Your task to perform on an android device: turn on javascript in the chrome app Image 0: 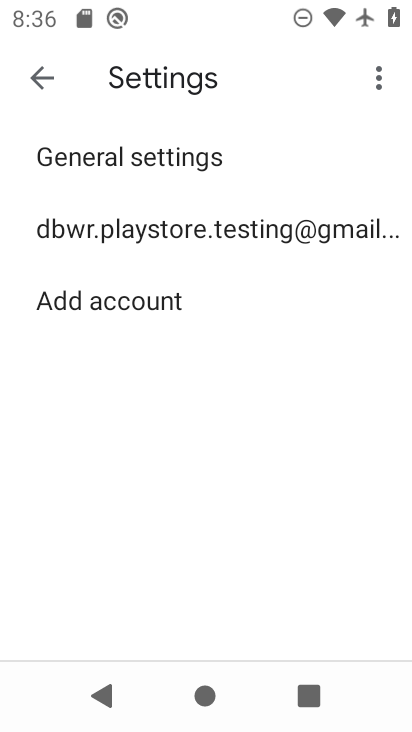
Step 0: press home button
Your task to perform on an android device: turn on javascript in the chrome app Image 1: 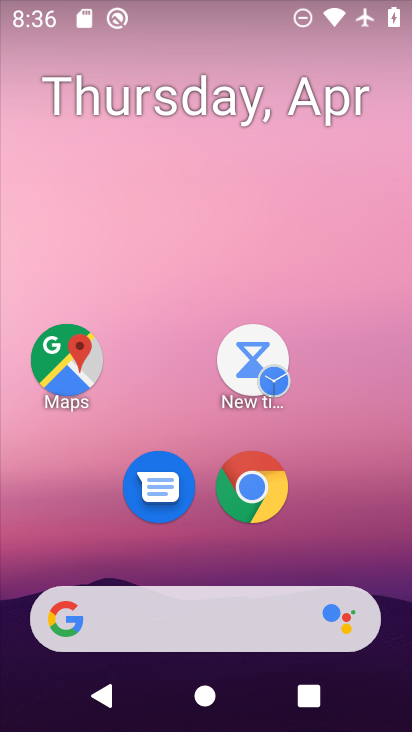
Step 1: click (254, 501)
Your task to perform on an android device: turn on javascript in the chrome app Image 2: 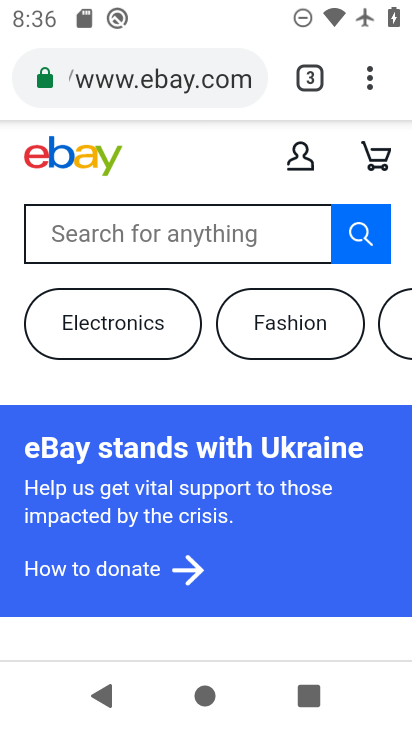
Step 2: drag from (371, 82) to (121, 548)
Your task to perform on an android device: turn on javascript in the chrome app Image 3: 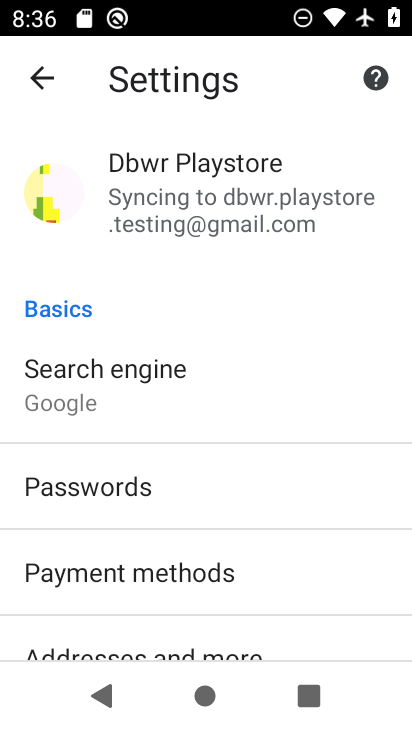
Step 3: drag from (279, 592) to (239, 158)
Your task to perform on an android device: turn on javascript in the chrome app Image 4: 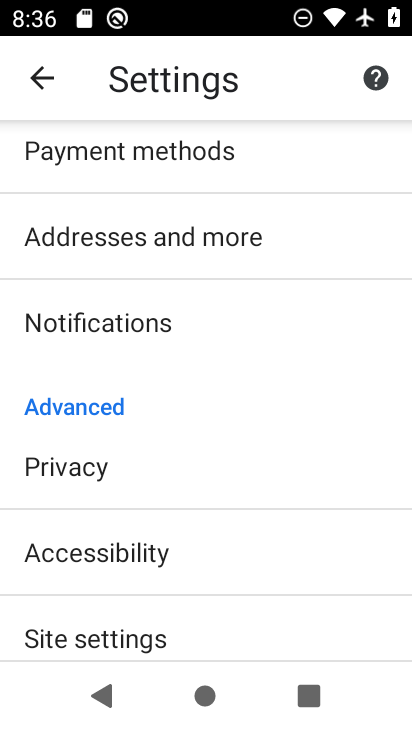
Step 4: drag from (213, 603) to (214, 337)
Your task to perform on an android device: turn on javascript in the chrome app Image 5: 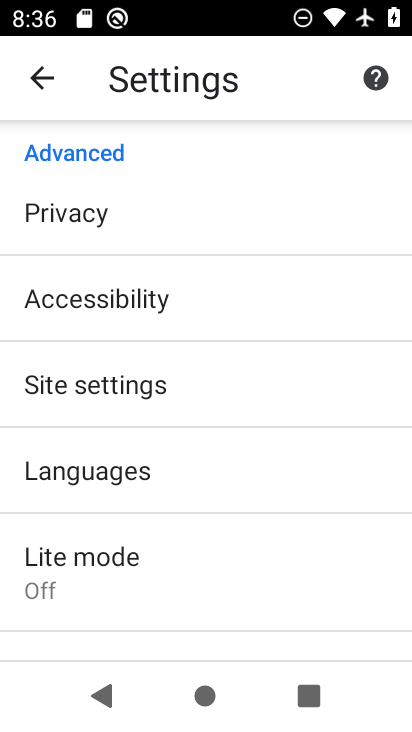
Step 5: click (122, 380)
Your task to perform on an android device: turn on javascript in the chrome app Image 6: 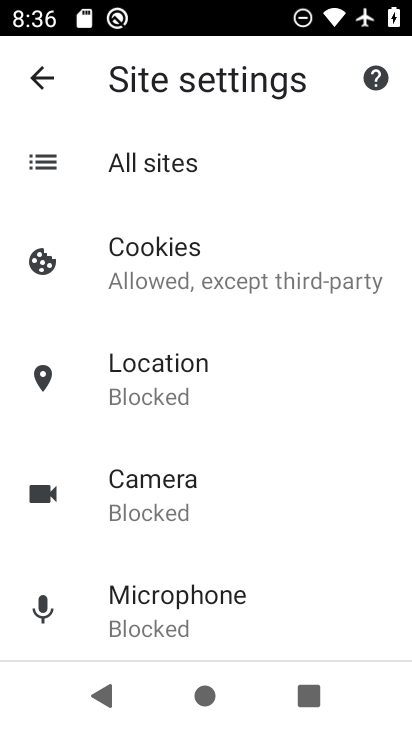
Step 6: drag from (293, 536) to (297, 153)
Your task to perform on an android device: turn on javascript in the chrome app Image 7: 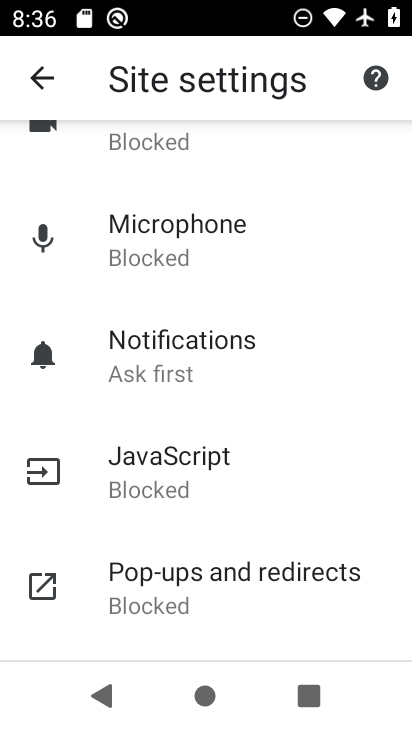
Step 7: click (159, 464)
Your task to perform on an android device: turn on javascript in the chrome app Image 8: 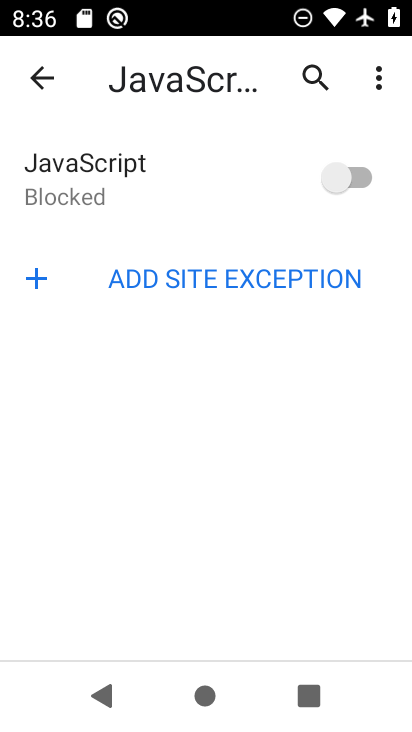
Step 8: click (348, 177)
Your task to perform on an android device: turn on javascript in the chrome app Image 9: 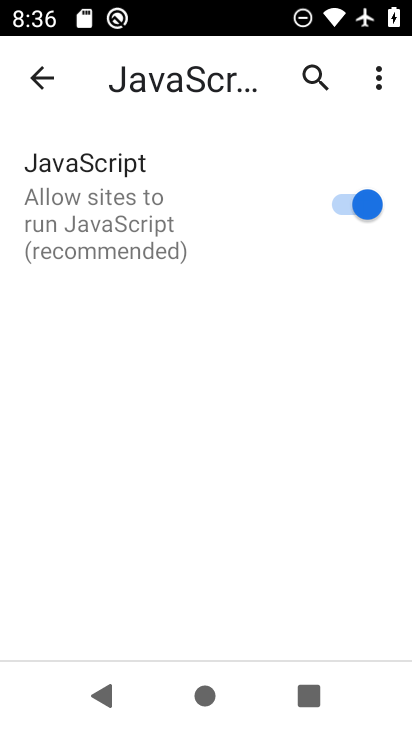
Step 9: task complete